Your task to perform on an android device: Go to Reddit.com Image 0: 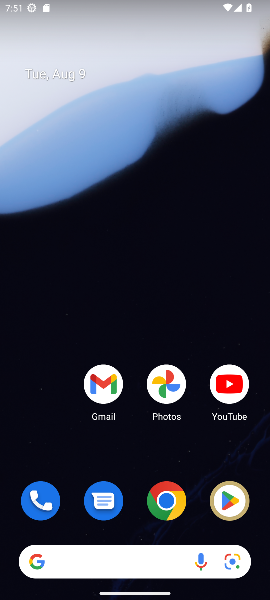
Step 0: click (175, 502)
Your task to perform on an android device: Go to Reddit.com Image 1: 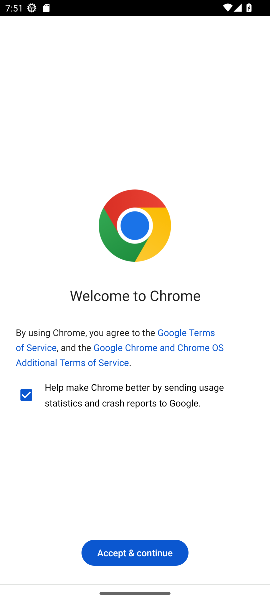
Step 1: click (111, 551)
Your task to perform on an android device: Go to Reddit.com Image 2: 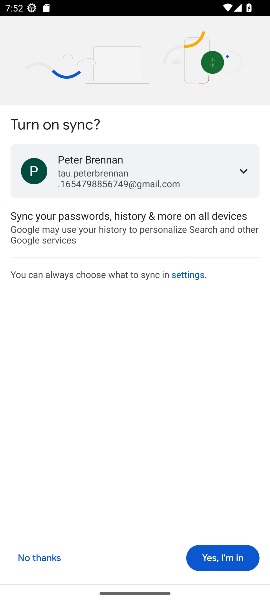
Step 2: click (218, 557)
Your task to perform on an android device: Go to Reddit.com Image 3: 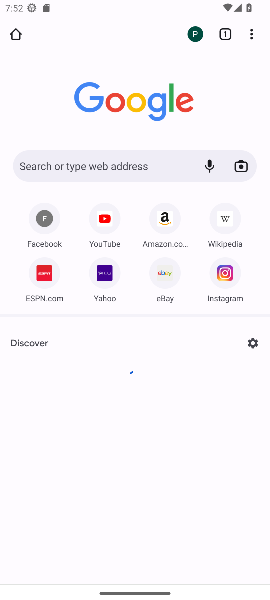
Step 3: click (66, 163)
Your task to perform on an android device: Go to Reddit.com Image 4: 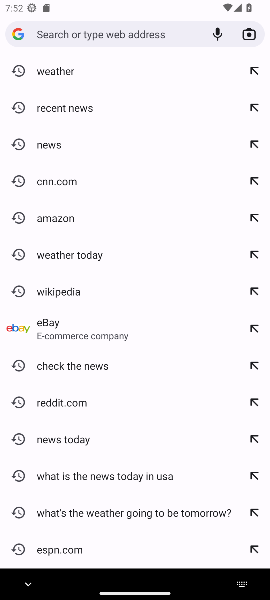
Step 4: type "reddit.com"
Your task to perform on an android device: Go to Reddit.com Image 5: 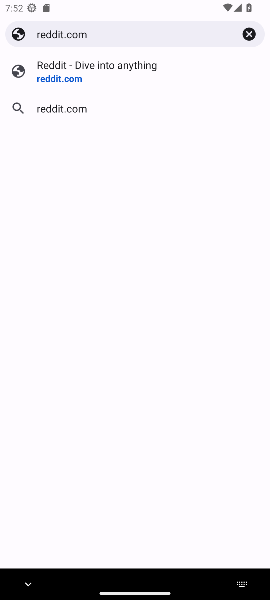
Step 5: click (129, 73)
Your task to perform on an android device: Go to Reddit.com Image 6: 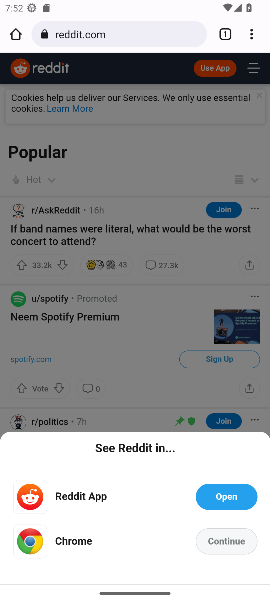
Step 6: task complete